Your task to perform on an android device: turn off notifications settings in the gmail app Image 0: 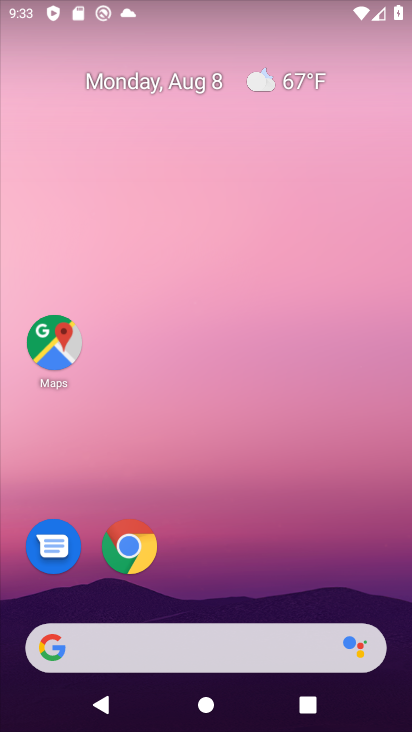
Step 0: drag from (262, 572) to (295, 180)
Your task to perform on an android device: turn off notifications settings in the gmail app Image 1: 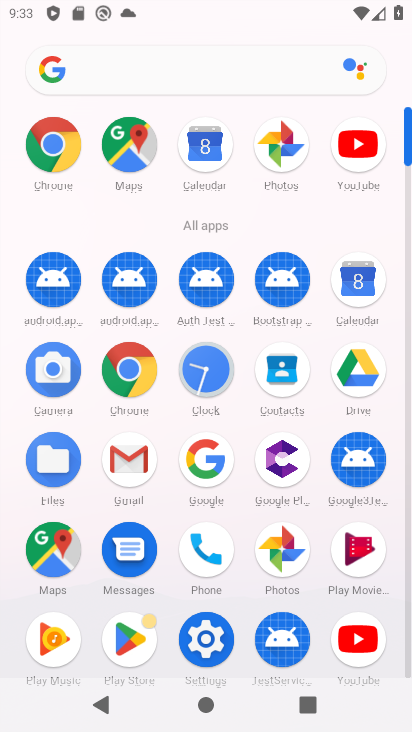
Step 1: click (130, 460)
Your task to perform on an android device: turn off notifications settings in the gmail app Image 2: 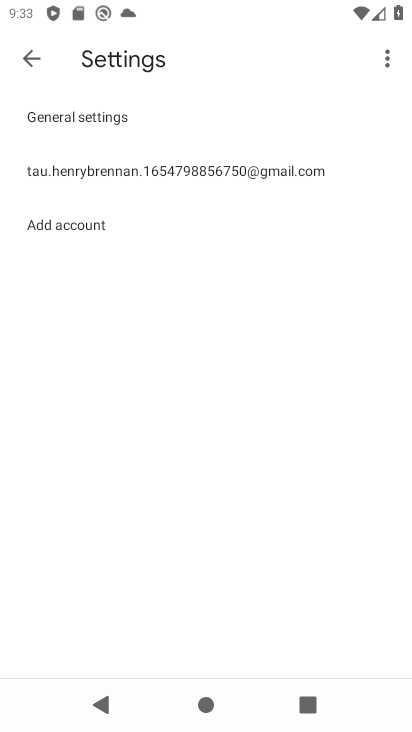
Step 2: task complete